Your task to perform on an android device: Go to calendar. Show me events next week Image 0: 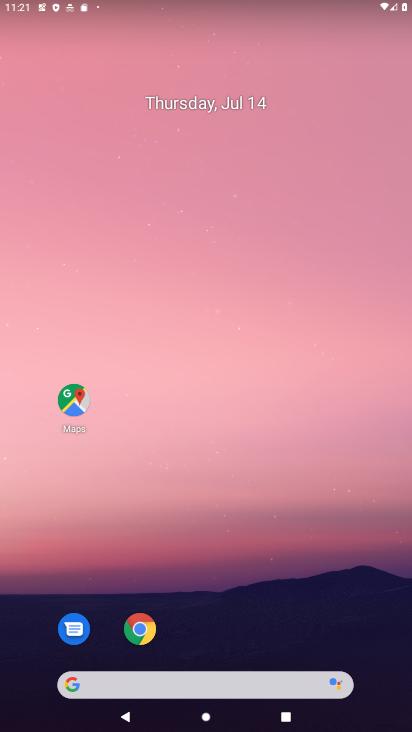
Step 0: press home button
Your task to perform on an android device: Go to calendar. Show me events next week Image 1: 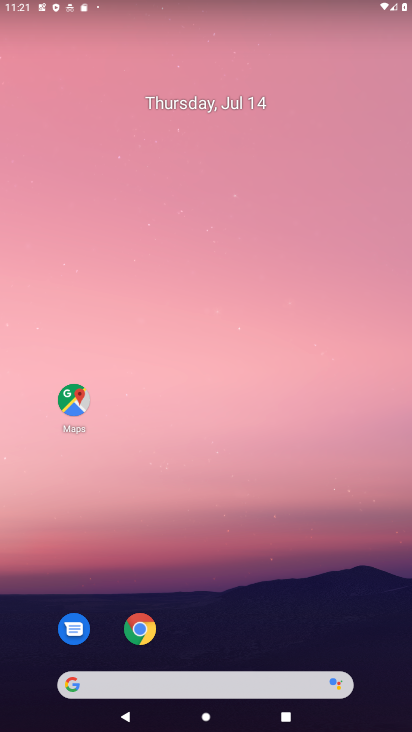
Step 1: drag from (330, 578) to (308, 111)
Your task to perform on an android device: Go to calendar. Show me events next week Image 2: 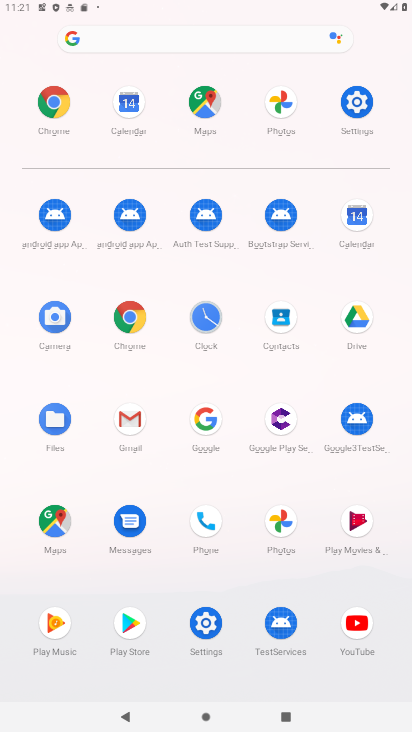
Step 2: click (357, 214)
Your task to perform on an android device: Go to calendar. Show me events next week Image 3: 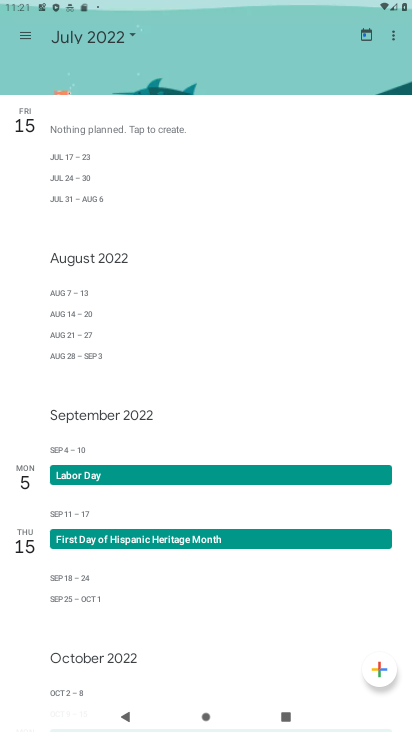
Step 3: click (26, 36)
Your task to perform on an android device: Go to calendar. Show me events next week Image 4: 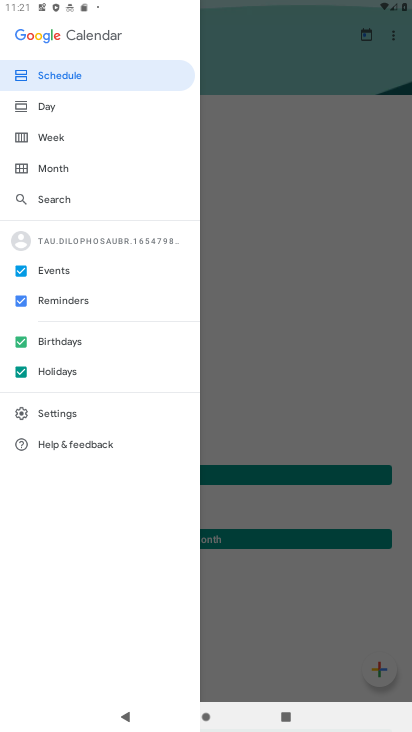
Step 4: click (49, 140)
Your task to perform on an android device: Go to calendar. Show me events next week Image 5: 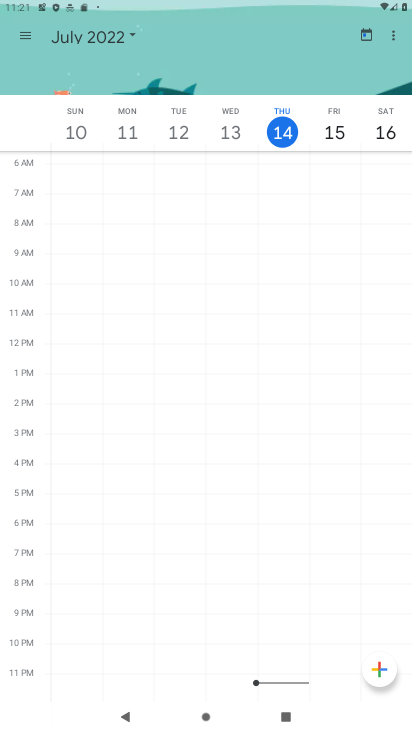
Step 5: task complete